Your task to perform on an android device: Empty the shopping cart on bestbuy. Add usb-c to usb-a to the cart on bestbuy, then select checkout. Image 0: 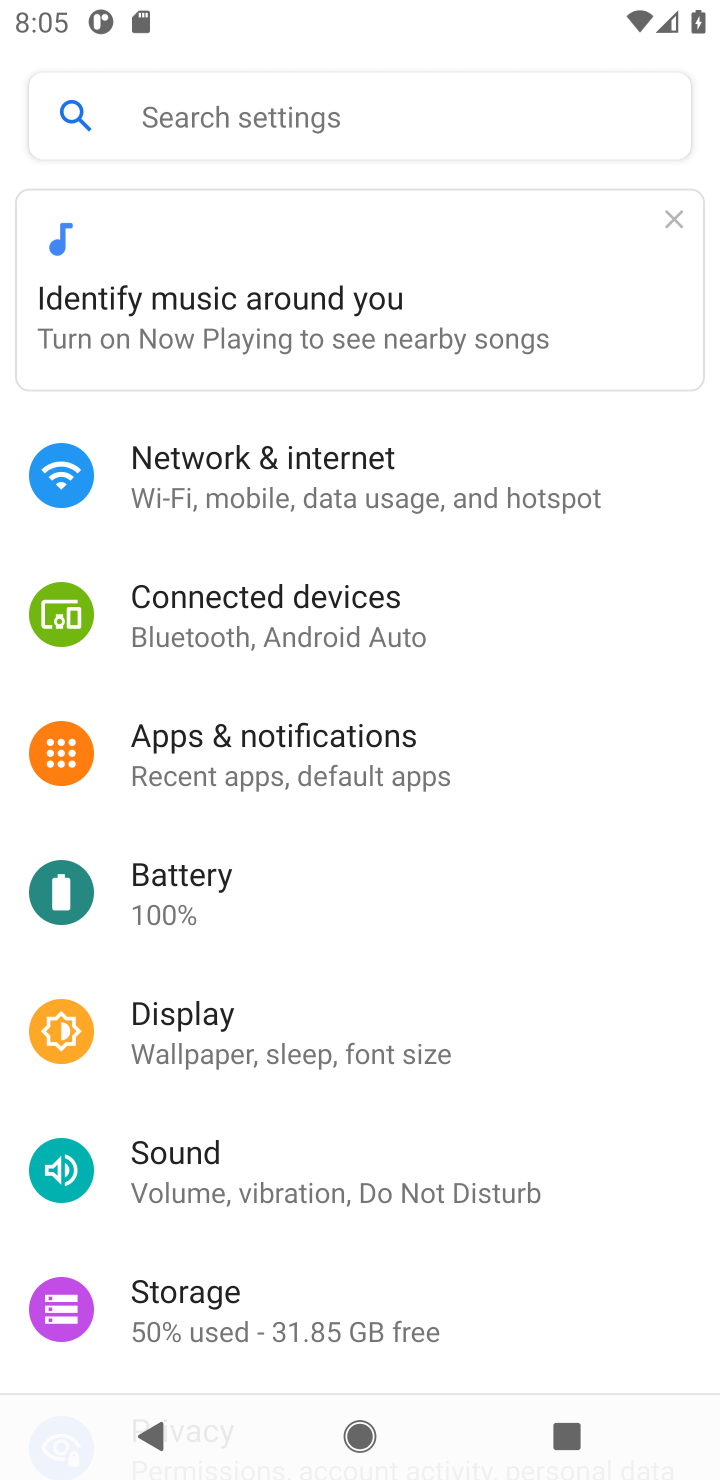
Step 0: press home button
Your task to perform on an android device: Empty the shopping cart on bestbuy. Add usb-c to usb-a to the cart on bestbuy, then select checkout. Image 1: 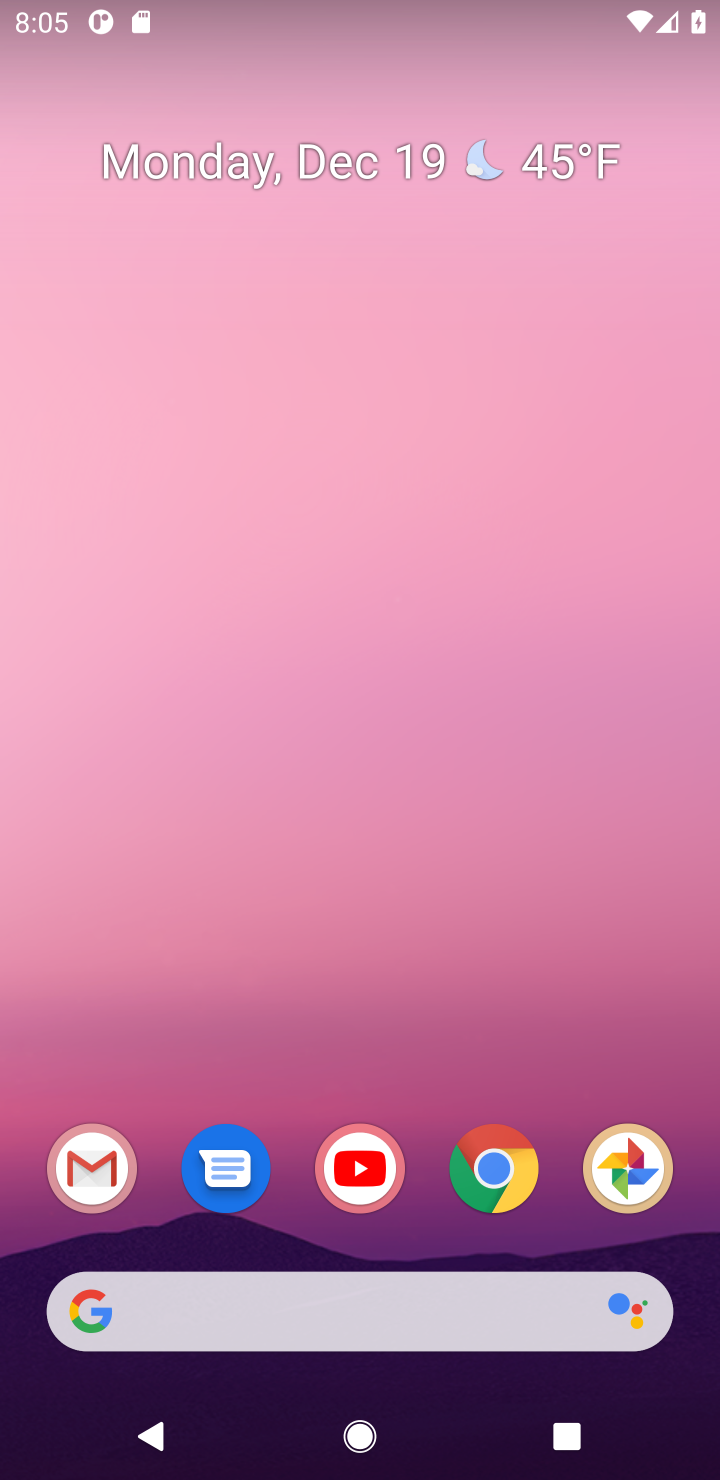
Step 1: click (492, 1174)
Your task to perform on an android device: Empty the shopping cart on bestbuy. Add usb-c to usb-a to the cart on bestbuy, then select checkout. Image 2: 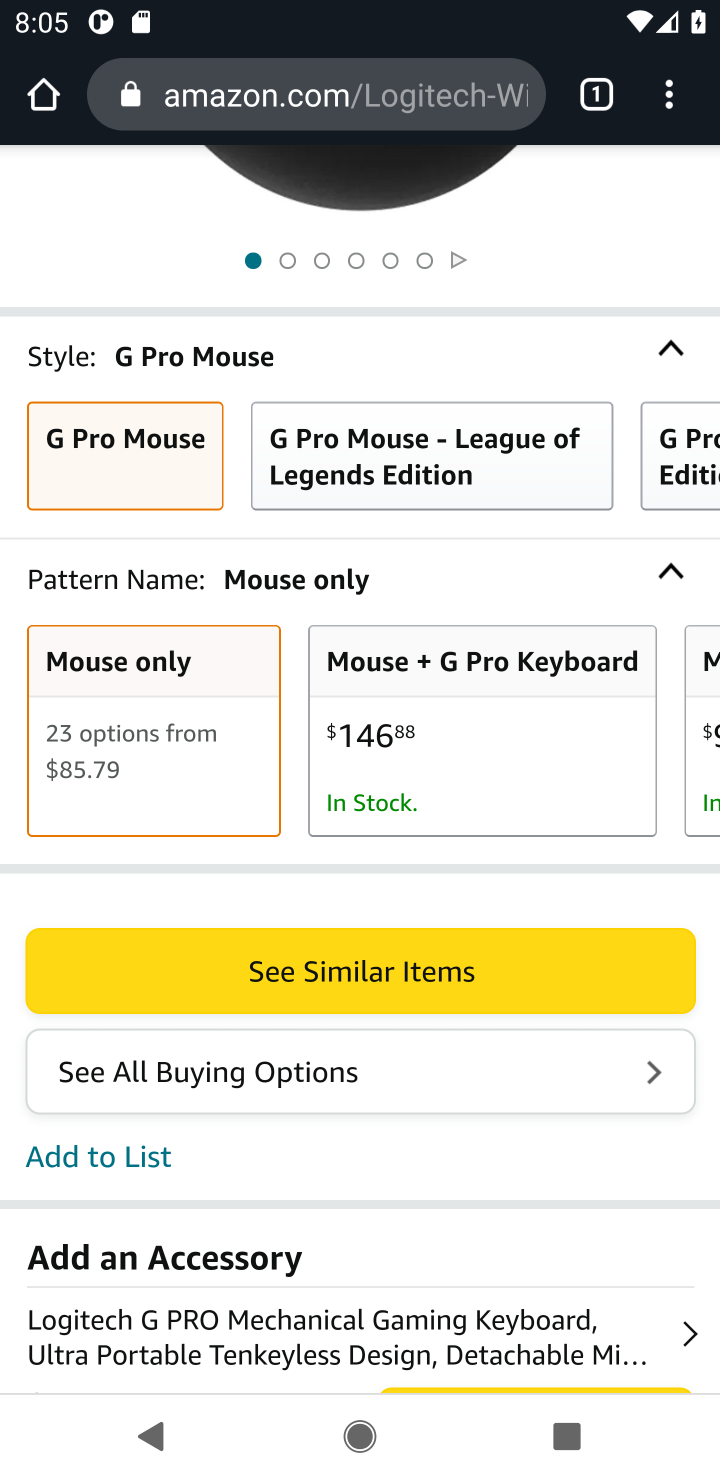
Step 2: click (274, 99)
Your task to perform on an android device: Empty the shopping cart on bestbuy. Add usb-c to usb-a to the cart on bestbuy, then select checkout. Image 3: 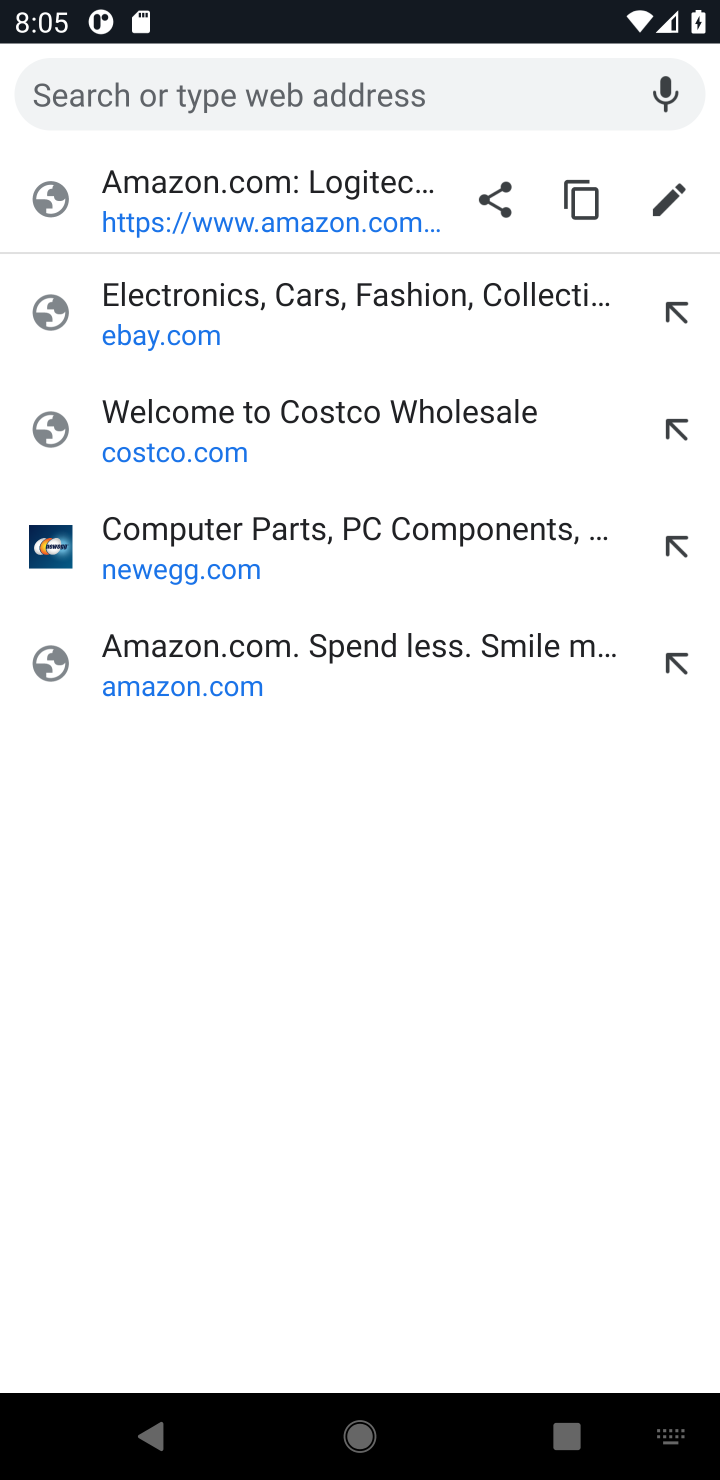
Step 3: type "bestbuy.com"
Your task to perform on an android device: Empty the shopping cart on bestbuy. Add usb-c to usb-a to the cart on bestbuy, then select checkout. Image 4: 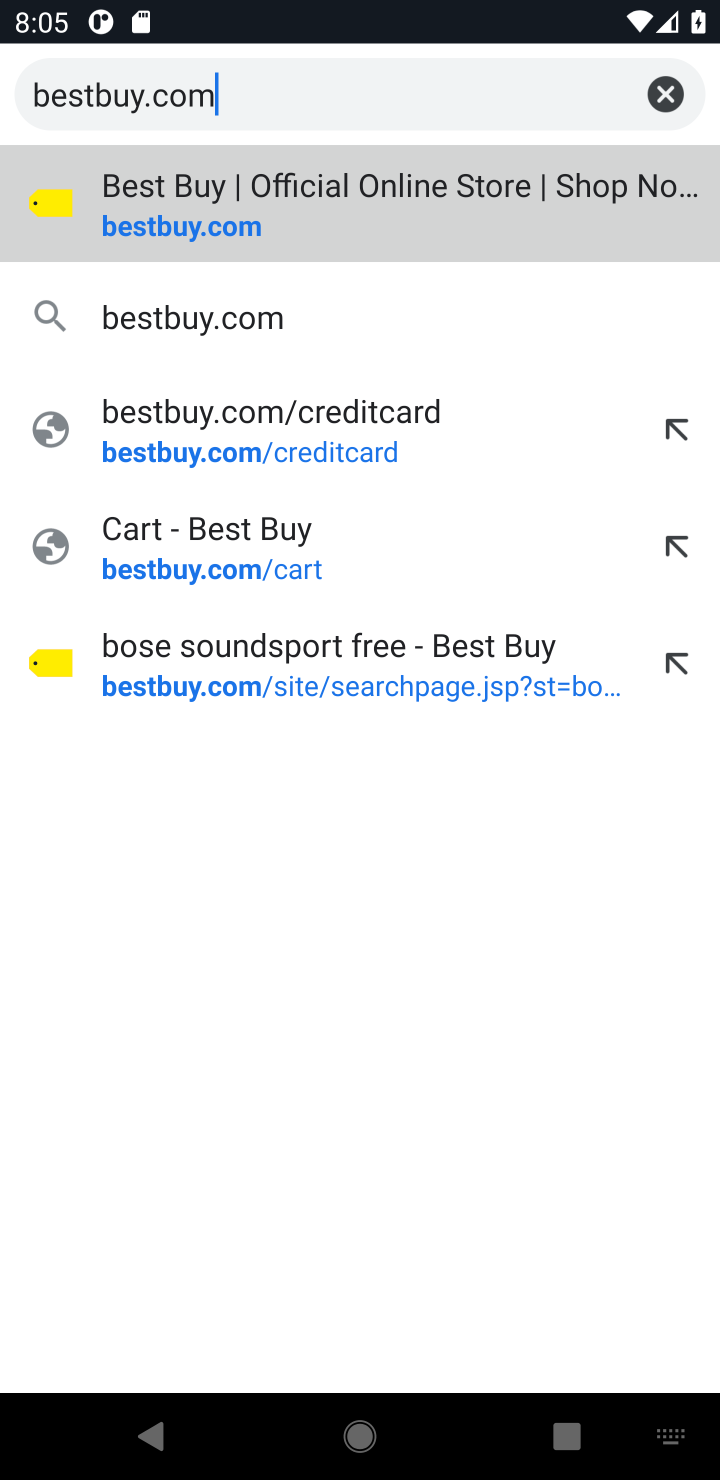
Step 4: click (148, 232)
Your task to perform on an android device: Empty the shopping cart on bestbuy. Add usb-c to usb-a to the cart on bestbuy, then select checkout. Image 5: 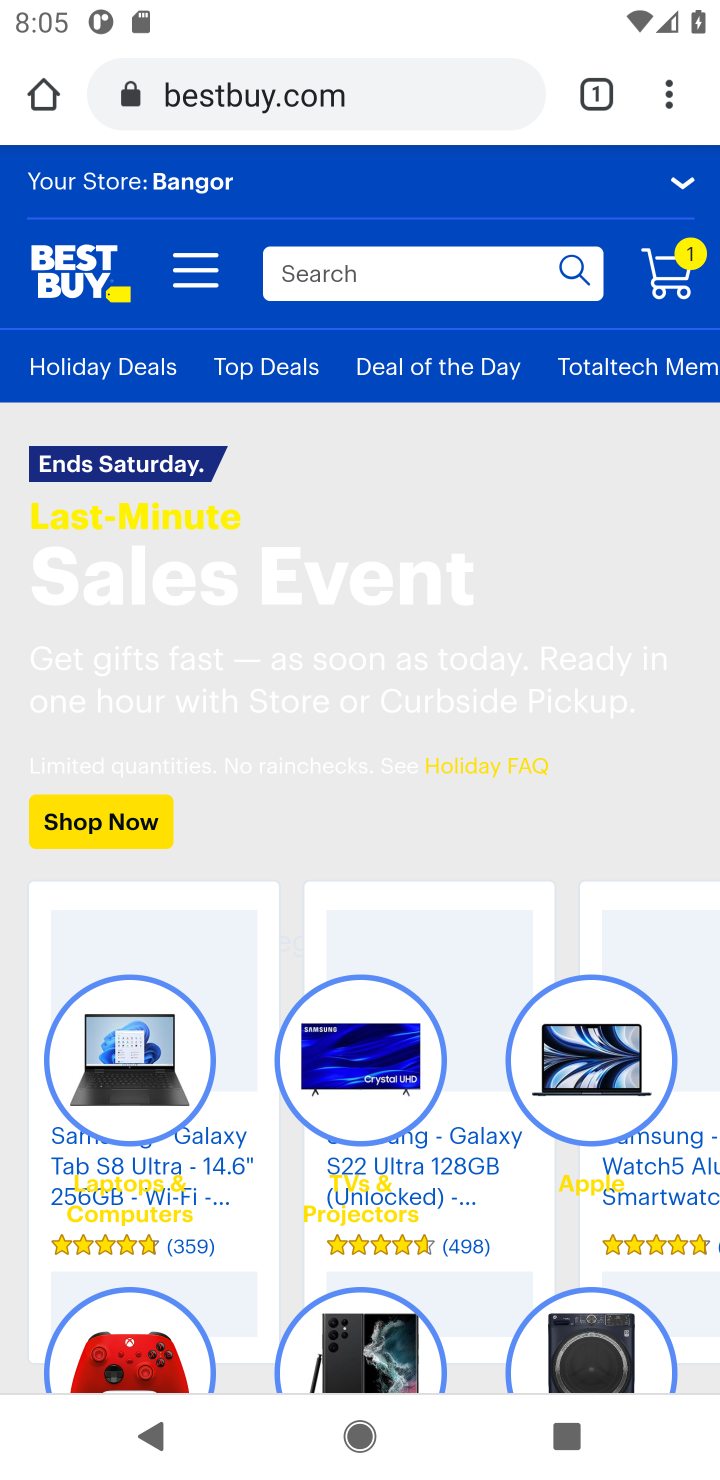
Step 5: click (669, 276)
Your task to perform on an android device: Empty the shopping cart on bestbuy. Add usb-c to usb-a to the cart on bestbuy, then select checkout. Image 6: 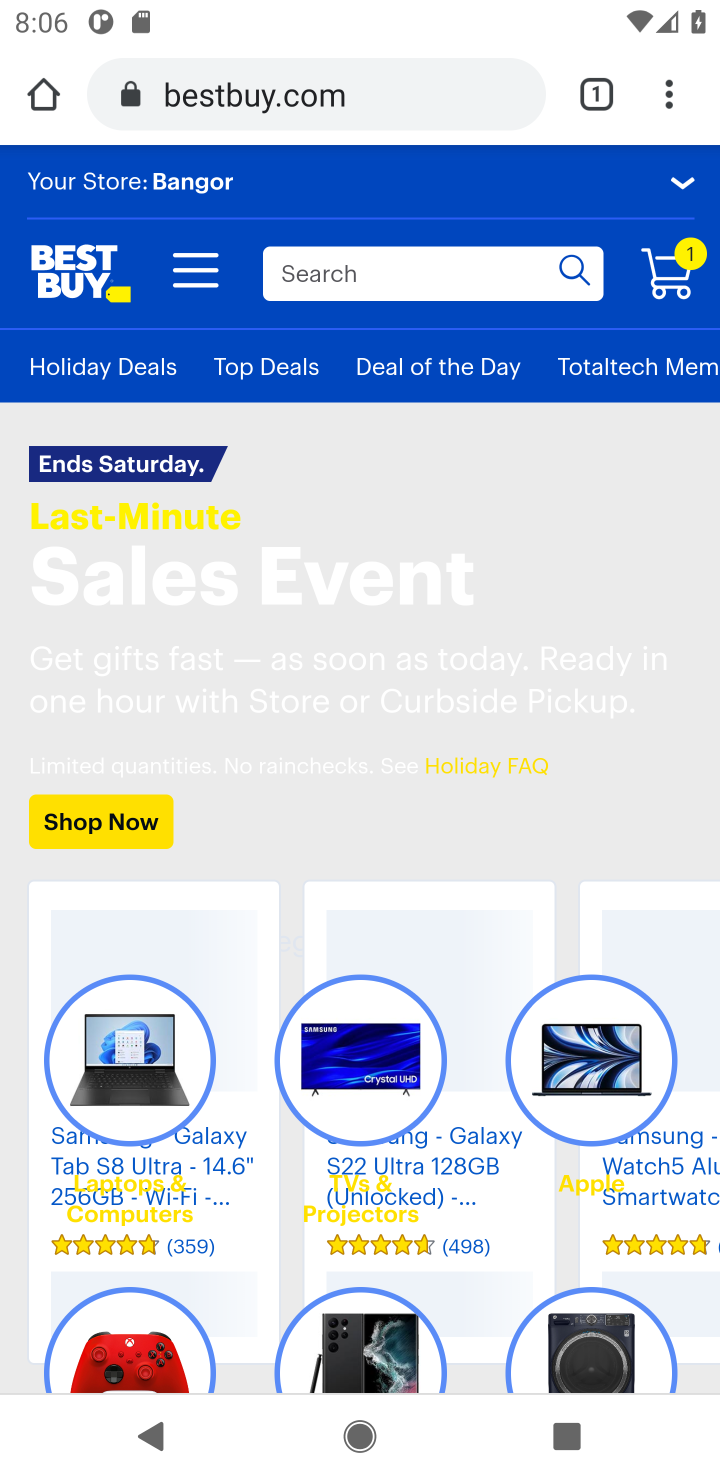
Step 6: click (667, 285)
Your task to perform on an android device: Empty the shopping cart on bestbuy. Add usb-c to usb-a to the cart on bestbuy, then select checkout. Image 7: 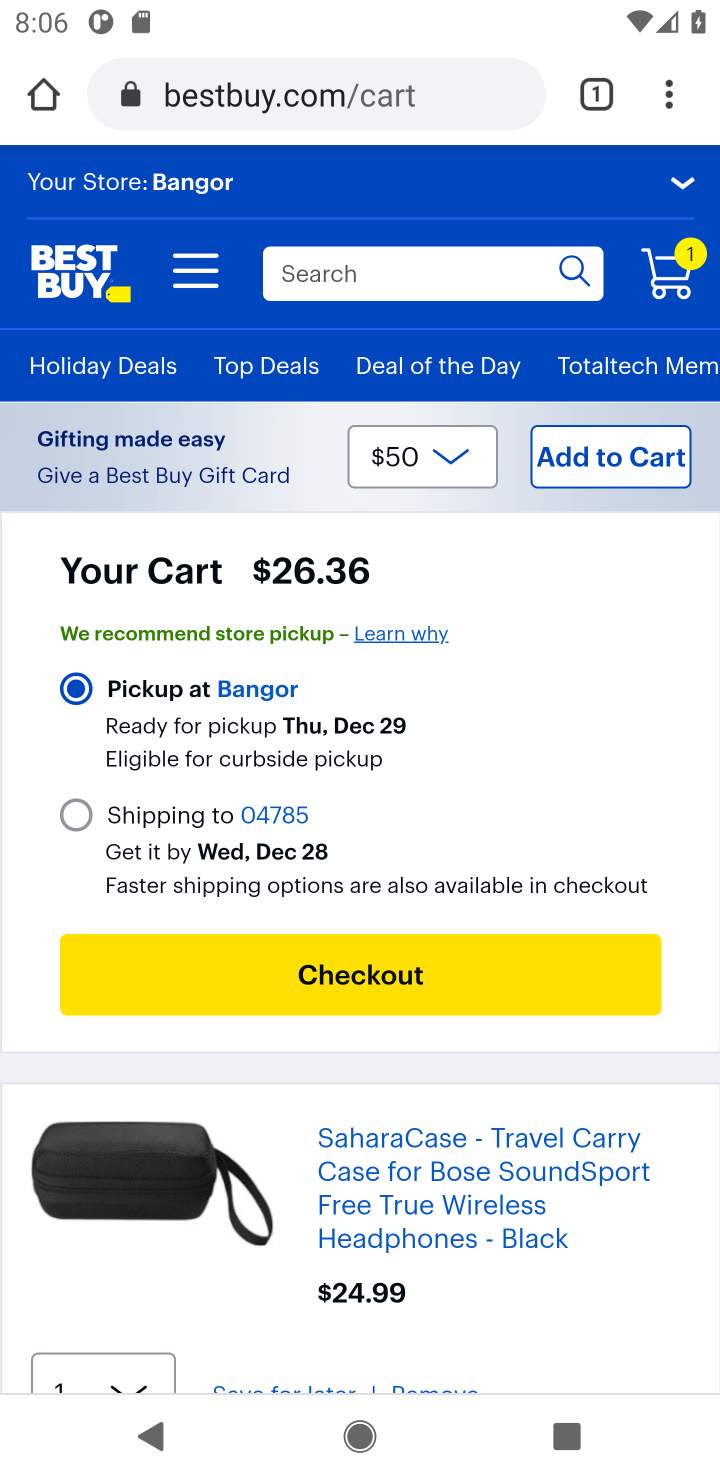
Step 7: drag from (364, 1063) to (216, 351)
Your task to perform on an android device: Empty the shopping cart on bestbuy. Add usb-c to usb-a to the cart on bestbuy, then select checkout. Image 8: 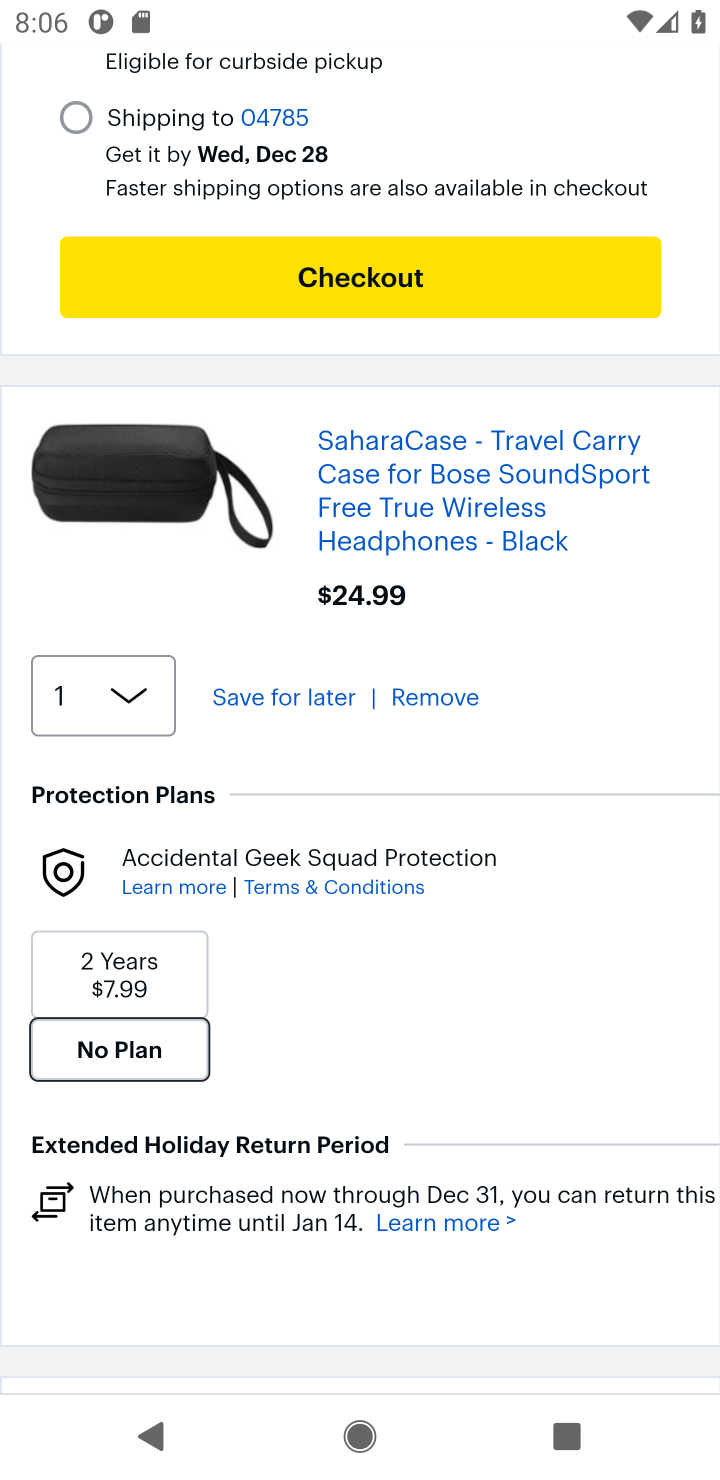
Step 8: click (430, 701)
Your task to perform on an android device: Empty the shopping cart on bestbuy. Add usb-c to usb-a to the cart on bestbuy, then select checkout. Image 9: 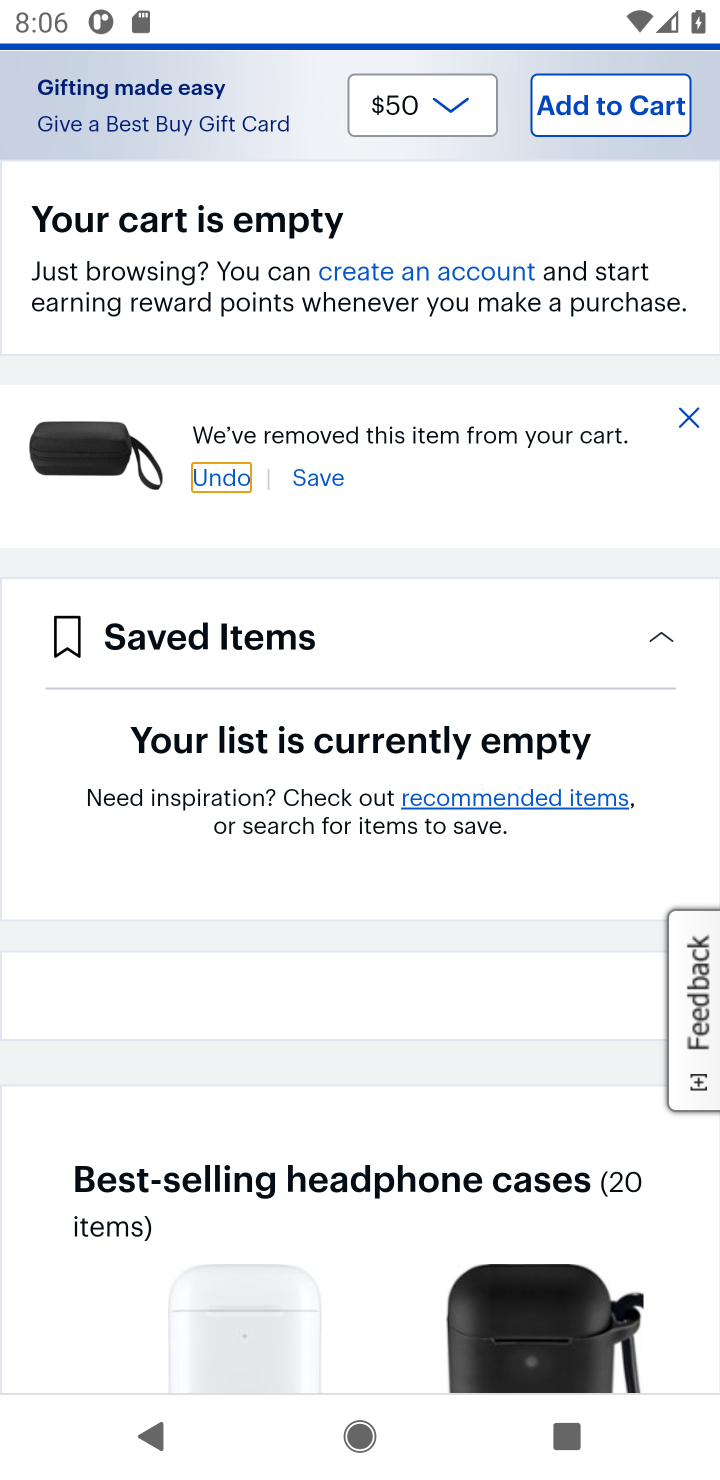
Step 9: drag from (402, 216) to (433, 769)
Your task to perform on an android device: Empty the shopping cart on bestbuy. Add usb-c to usb-a to the cart on bestbuy, then select checkout. Image 10: 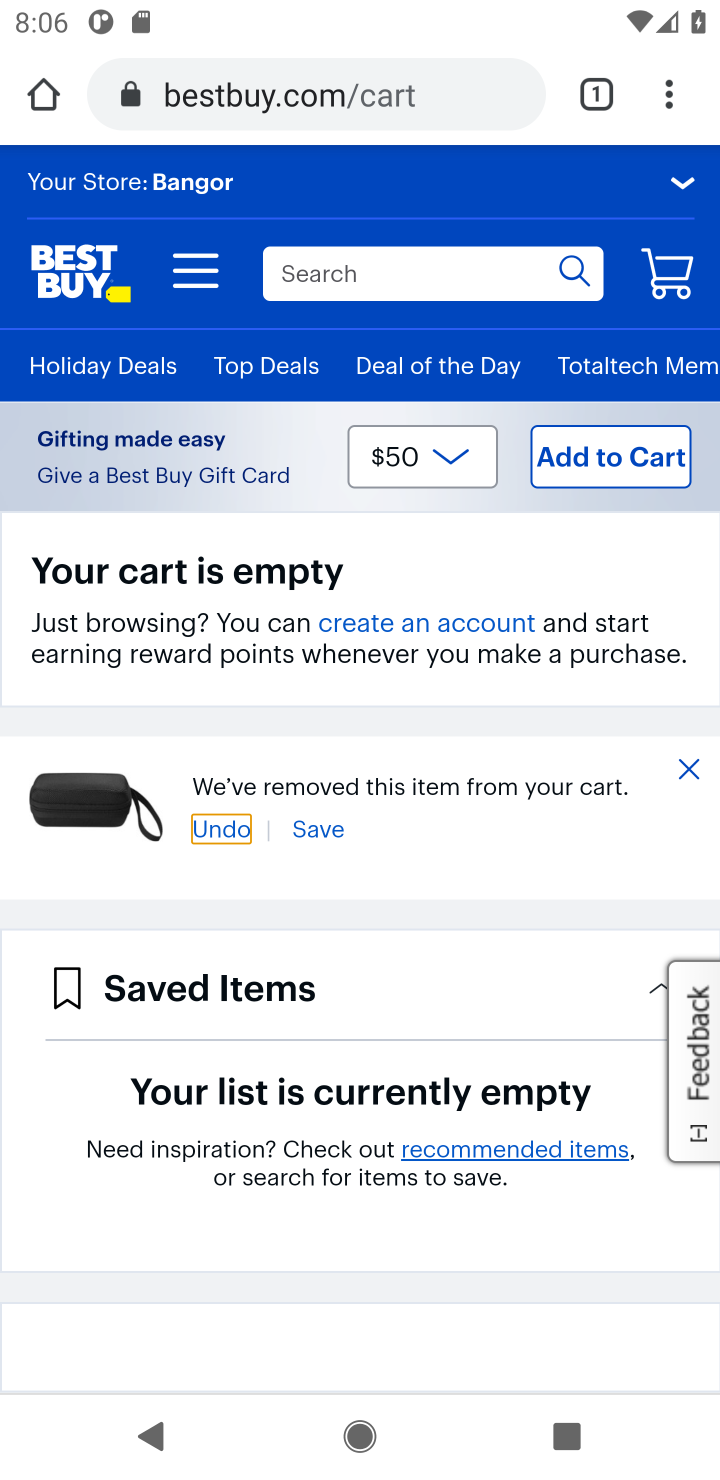
Step 10: click (342, 283)
Your task to perform on an android device: Empty the shopping cart on bestbuy. Add usb-c to usb-a to the cart on bestbuy, then select checkout. Image 11: 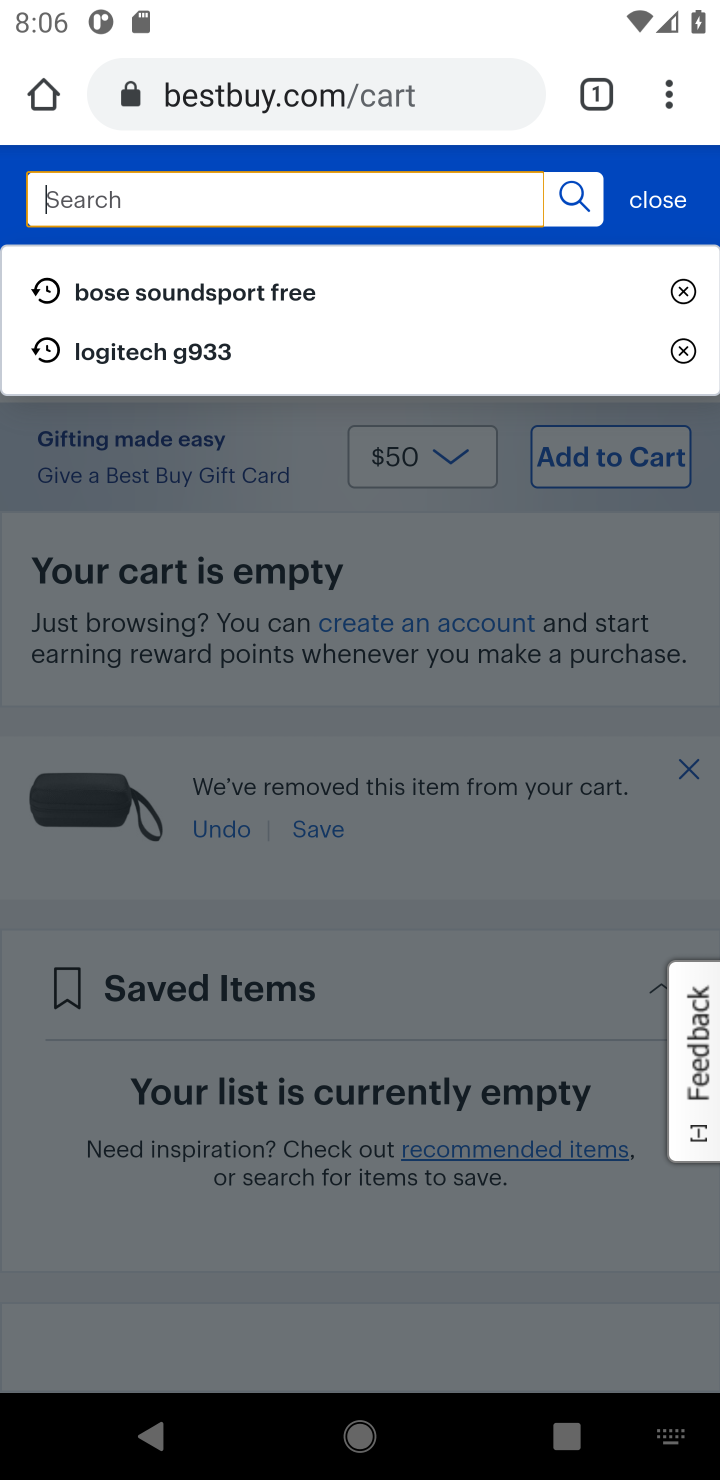
Step 11: type "usb-c to usb-a"
Your task to perform on an android device: Empty the shopping cart on bestbuy. Add usb-c to usb-a to the cart on bestbuy, then select checkout. Image 12: 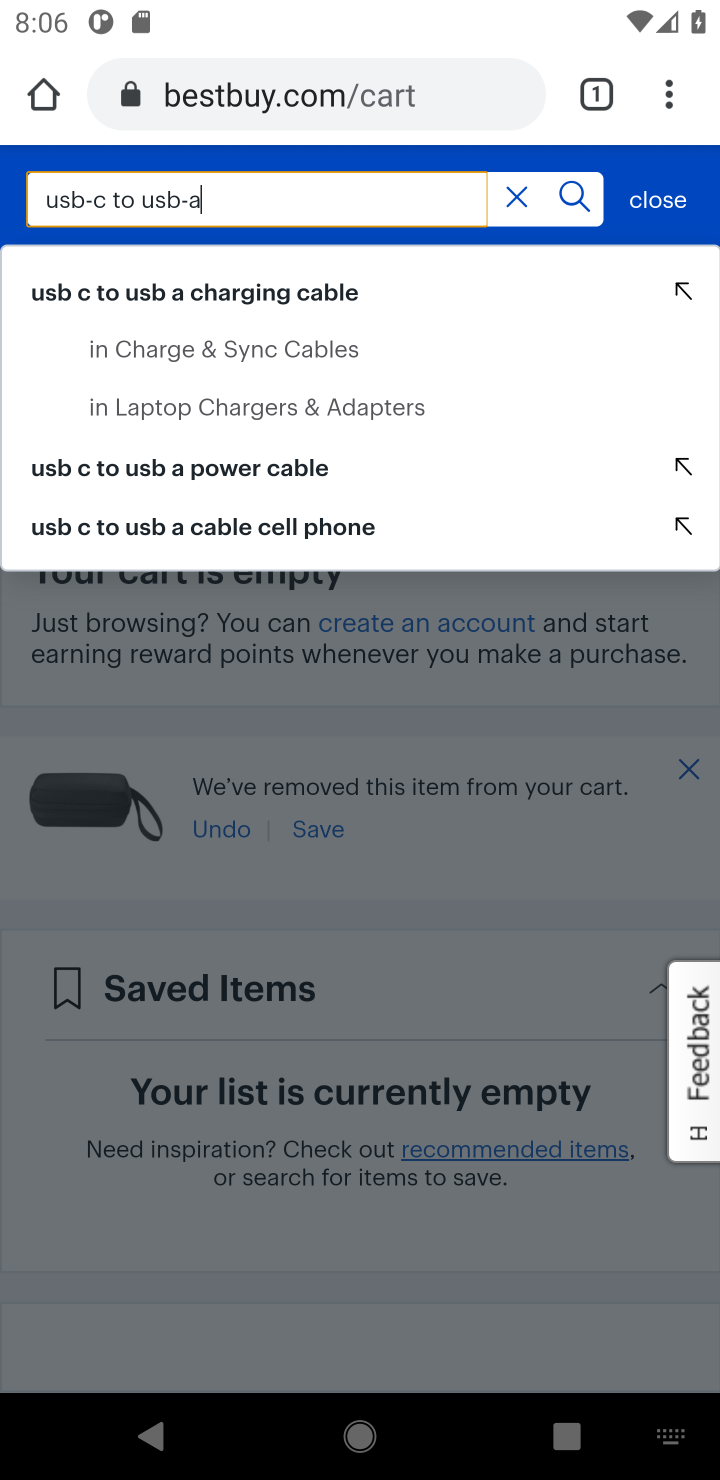
Step 12: click (172, 304)
Your task to perform on an android device: Empty the shopping cart on bestbuy. Add usb-c to usb-a to the cart on bestbuy, then select checkout. Image 13: 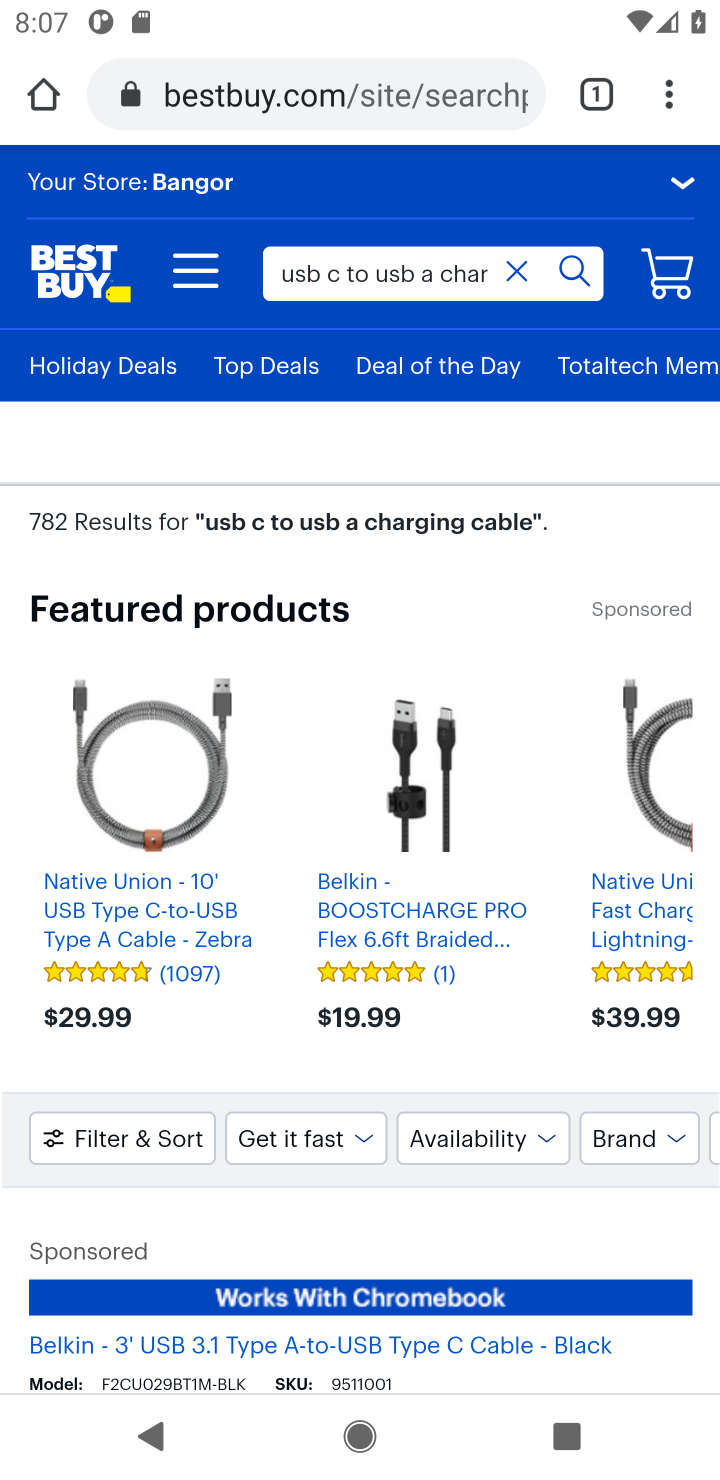
Step 13: drag from (236, 1068) to (217, 550)
Your task to perform on an android device: Empty the shopping cart on bestbuy. Add usb-c to usb-a to the cart on bestbuy, then select checkout. Image 14: 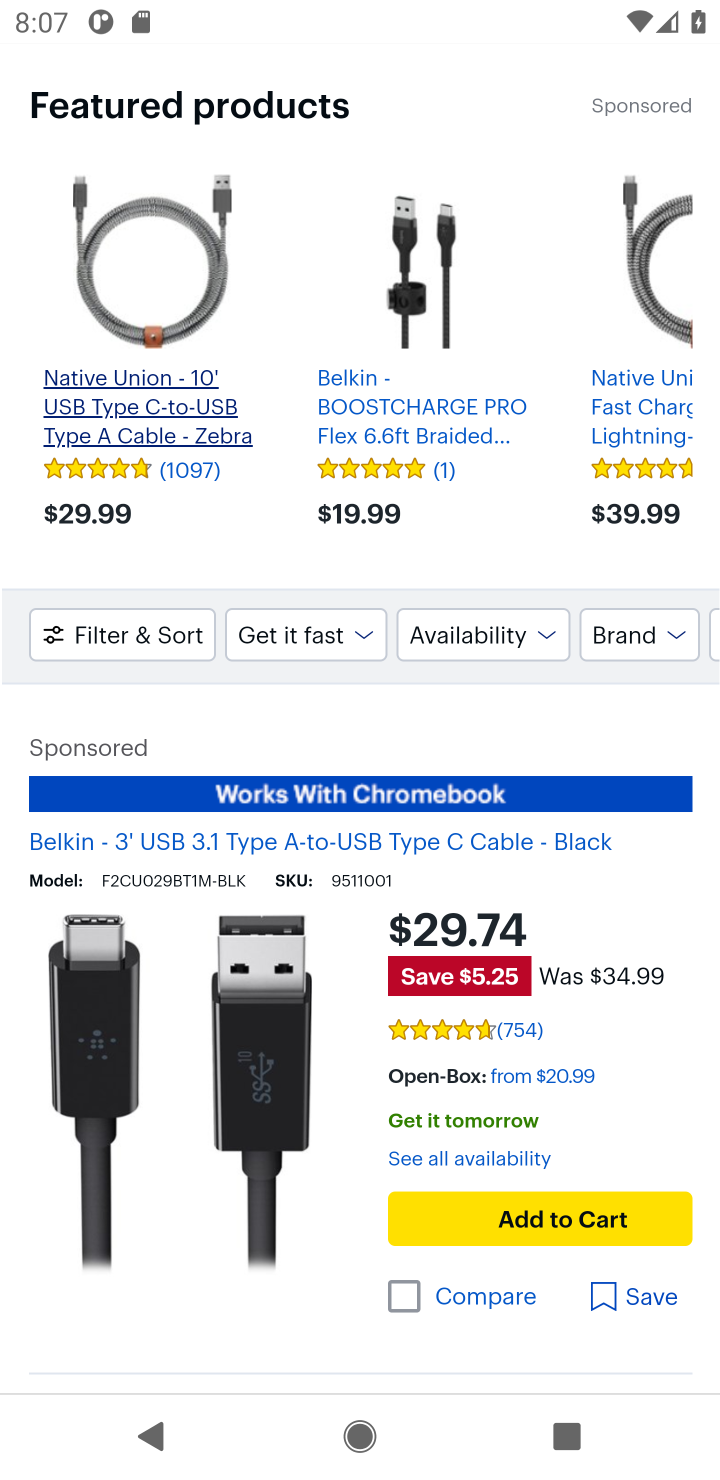
Step 14: drag from (208, 1038) to (205, 626)
Your task to perform on an android device: Empty the shopping cart on bestbuy. Add usb-c to usb-a to the cart on bestbuy, then select checkout. Image 15: 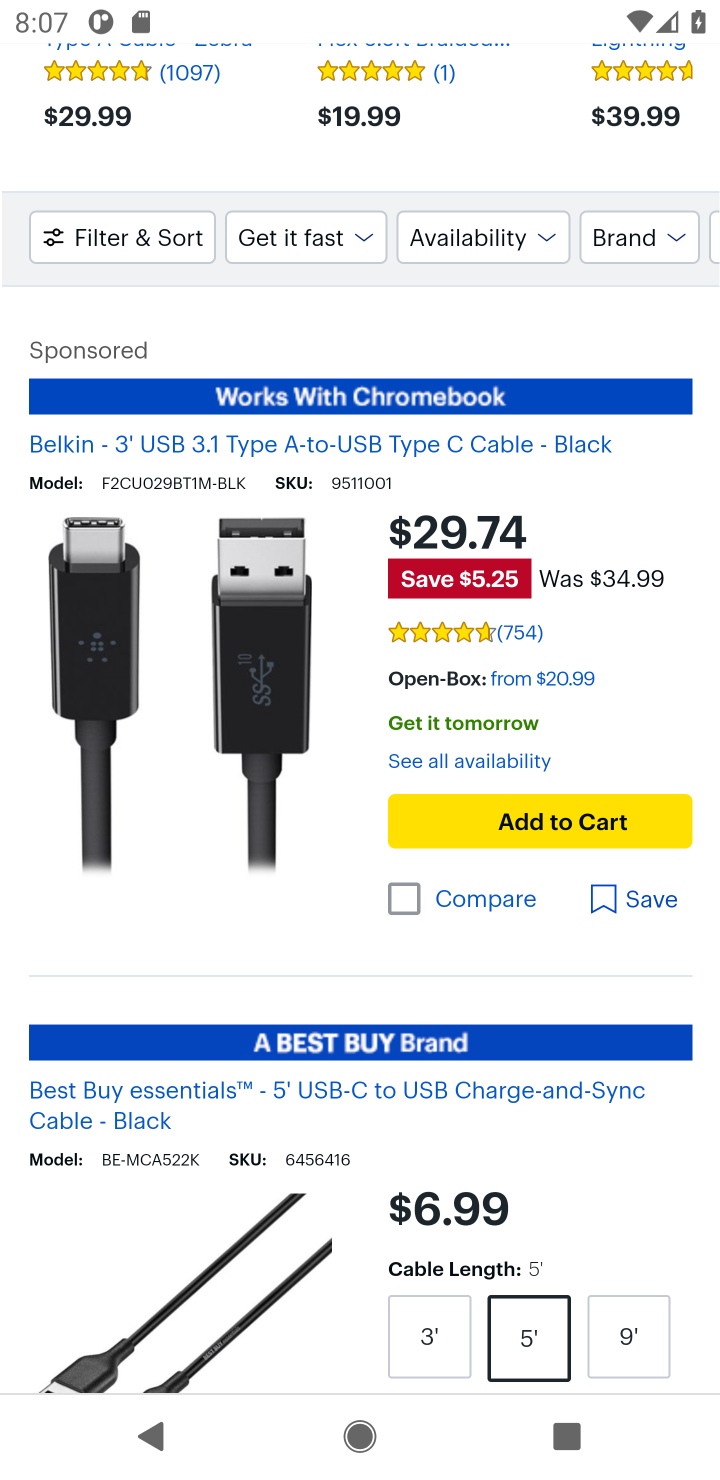
Step 15: click (505, 816)
Your task to perform on an android device: Empty the shopping cart on bestbuy. Add usb-c to usb-a to the cart on bestbuy, then select checkout. Image 16: 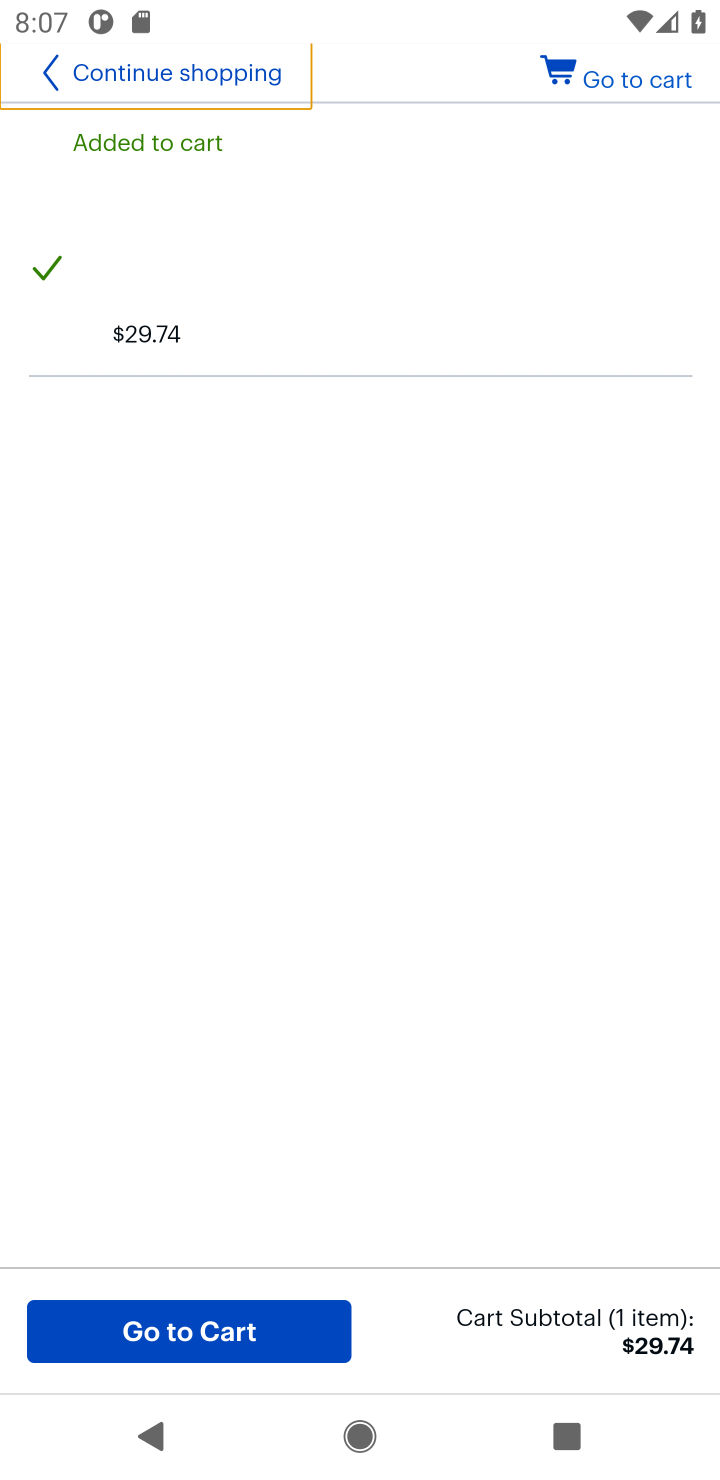
Step 16: click (631, 86)
Your task to perform on an android device: Empty the shopping cart on bestbuy. Add usb-c to usb-a to the cart on bestbuy, then select checkout. Image 17: 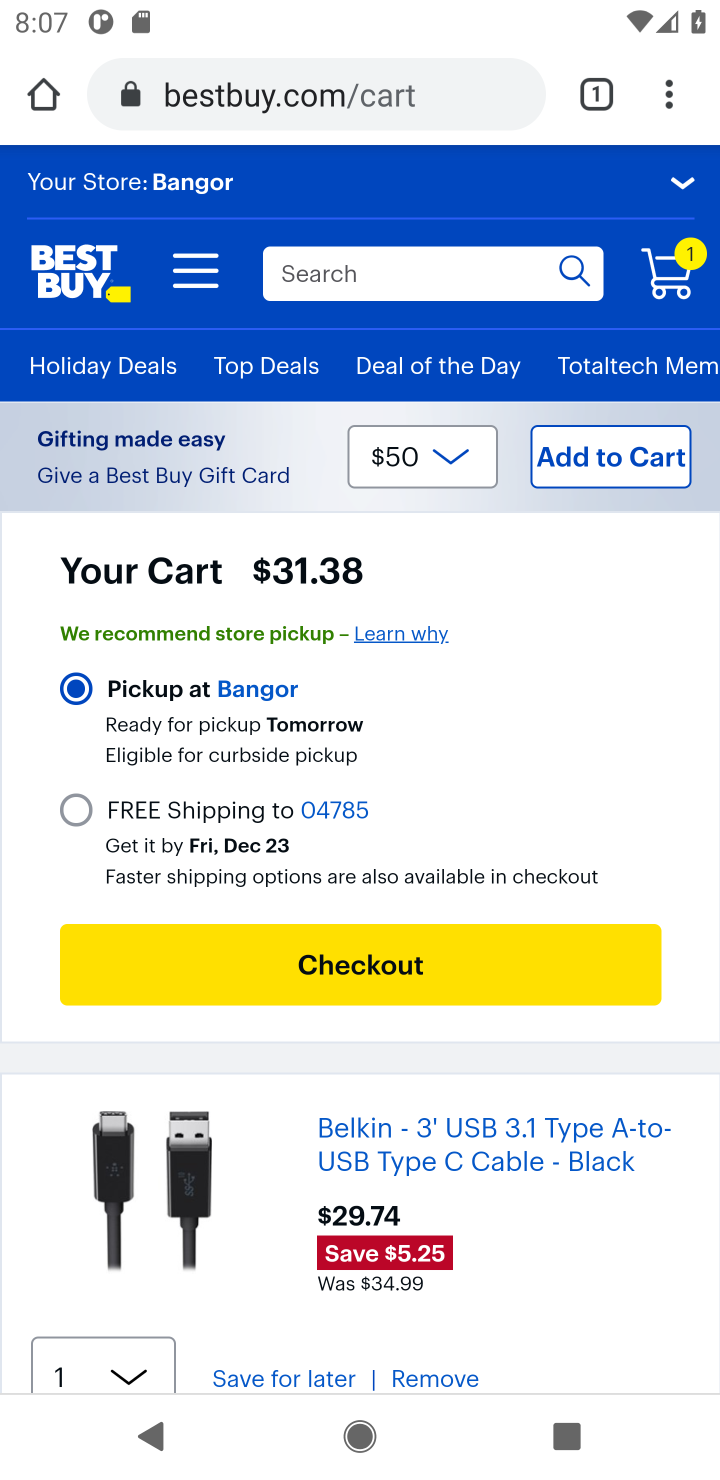
Step 17: click (348, 967)
Your task to perform on an android device: Empty the shopping cart on bestbuy. Add usb-c to usb-a to the cart on bestbuy, then select checkout. Image 18: 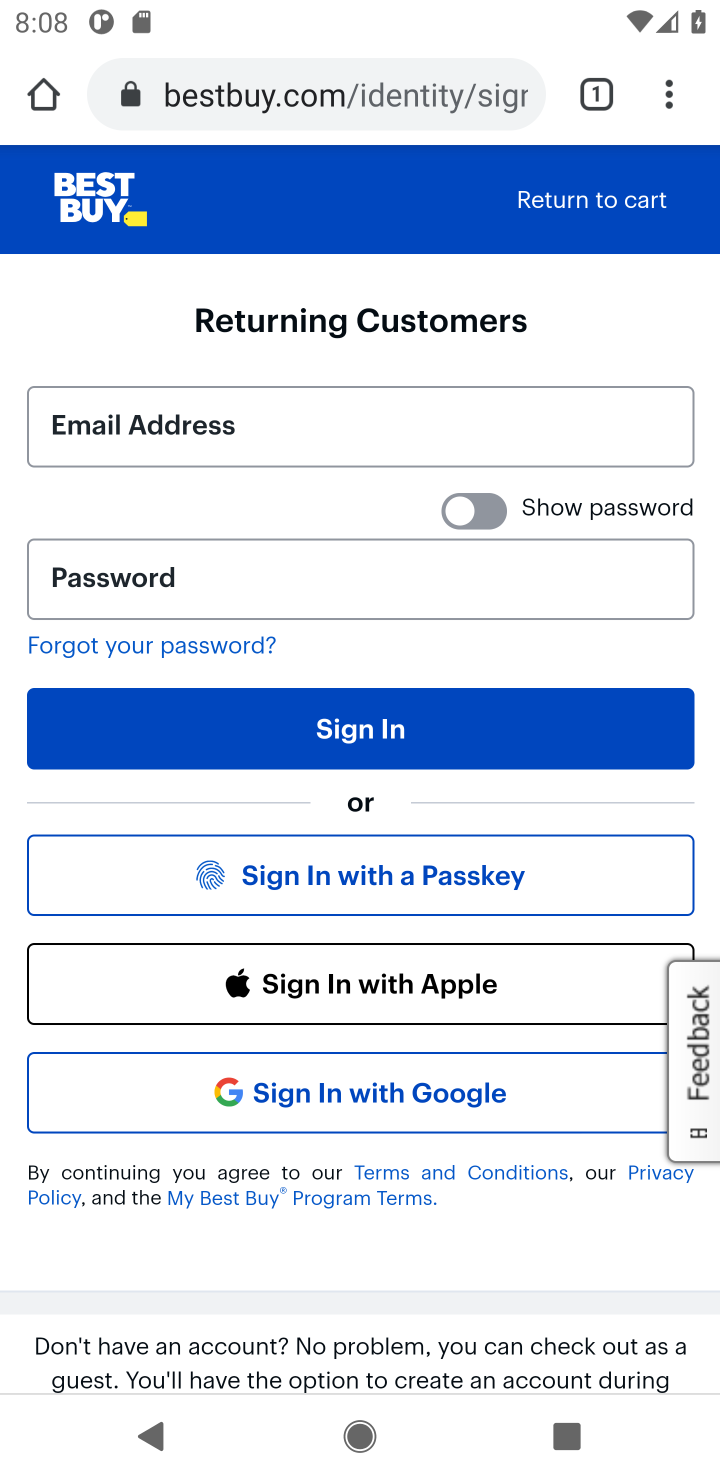
Step 18: task complete